Your task to perform on an android device: Go to internet settings Image 0: 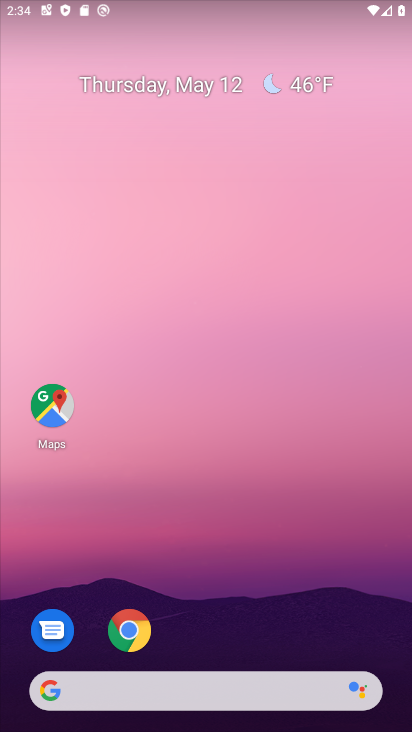
Step 0: drag from (220, 600) to (295, 103)
Your task to perform on an android device: Go to internet settings Image 1: 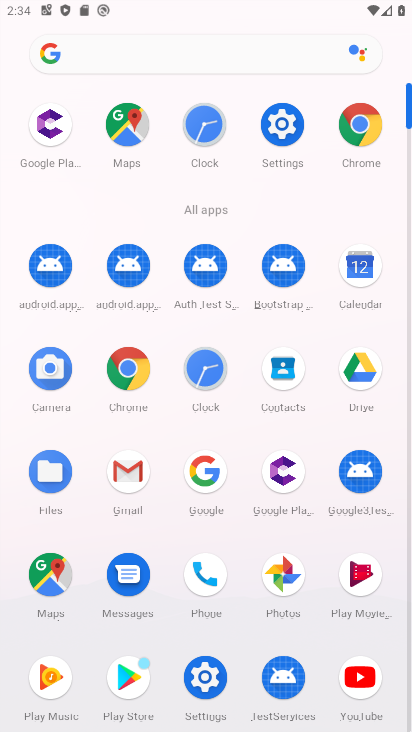
Step 1: click (280, 122)
Your task to perform on an android device: Go to internet settings Image 2: 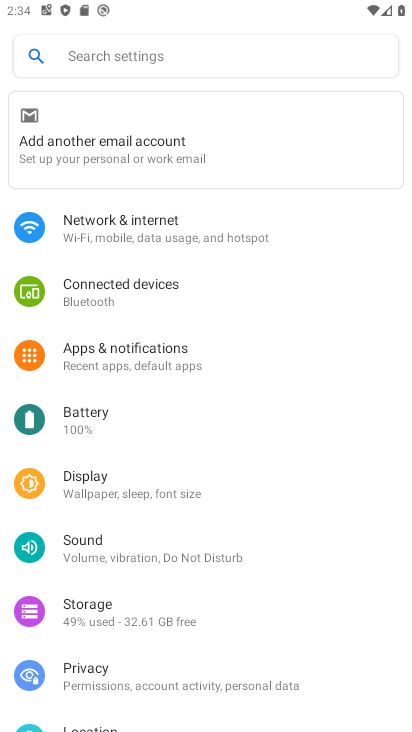
Step 2: click (131, 237)
Your task to perform on an android device: Go to internet settings Image 3: 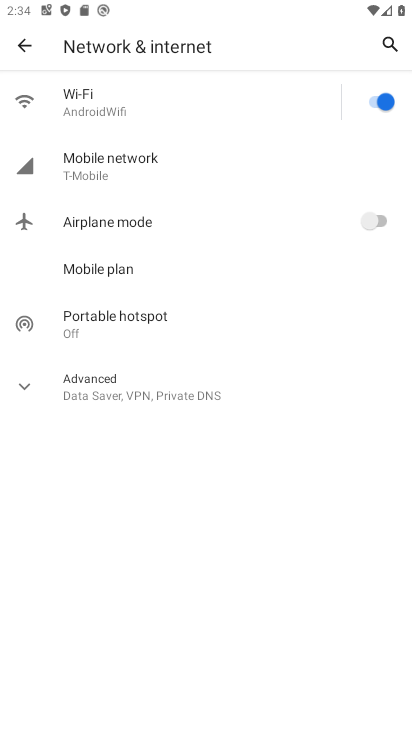
Step 3: task complete